Your task to perform on an android device: Go to Reddit.com Image 0: 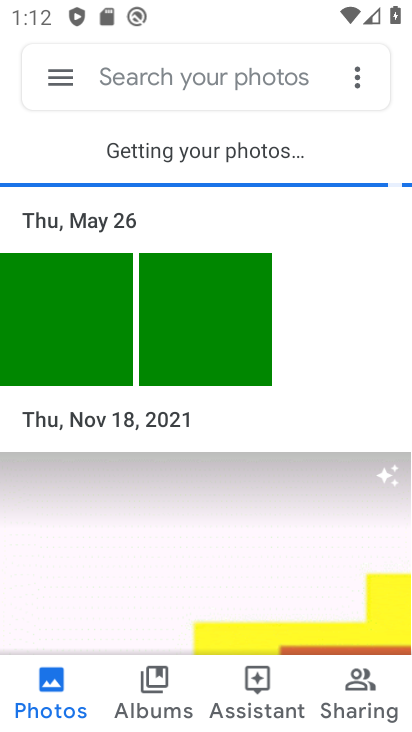
Step 0: press home button
Your task to perform on an android device: Go to Reddit.com Image 1: 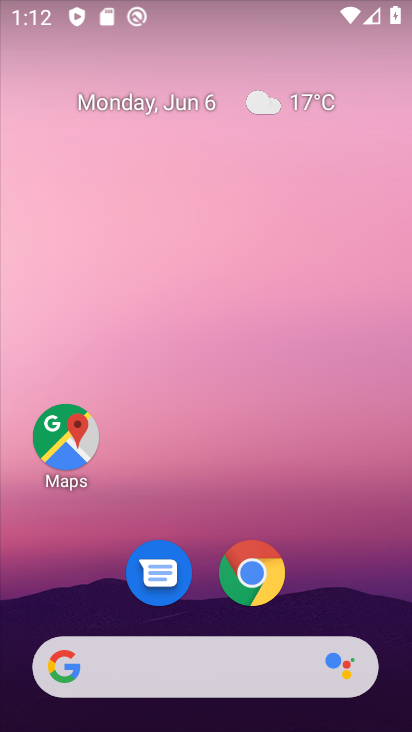
Step 1: drag from (362, 594) to (356, 124)
Your task to perform on an android device: Go to Reddit.com Image 2: 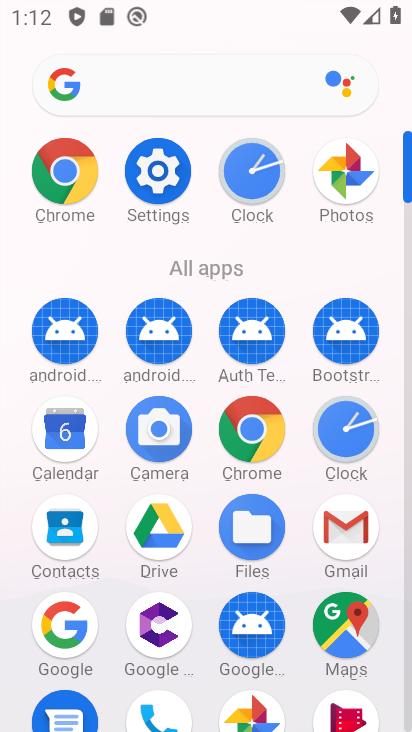
Step 2: click (274, 429)
Your task to perform on an android device: Go to Reddit.com Image 3: 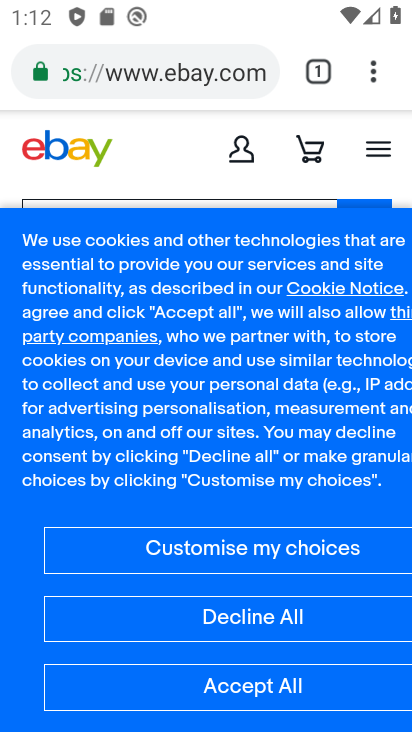
Step 3: click (233, 86)
Your task to perform on an android device: Go to Reddit.com Image 4: 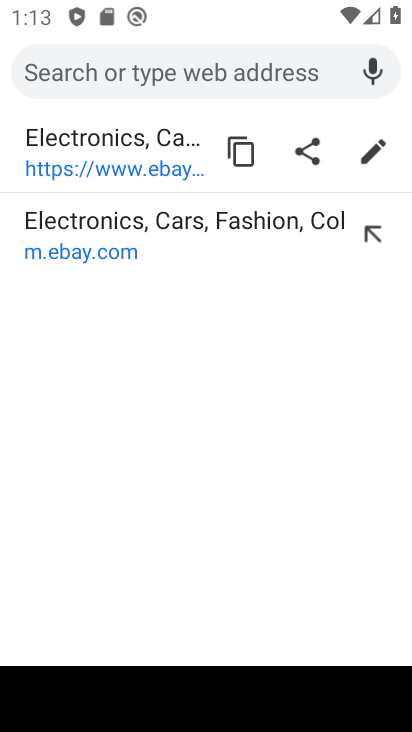
Step 4: type "reddit.com"
Your task to perform on an android device: Go to Reddit.com Image 5: 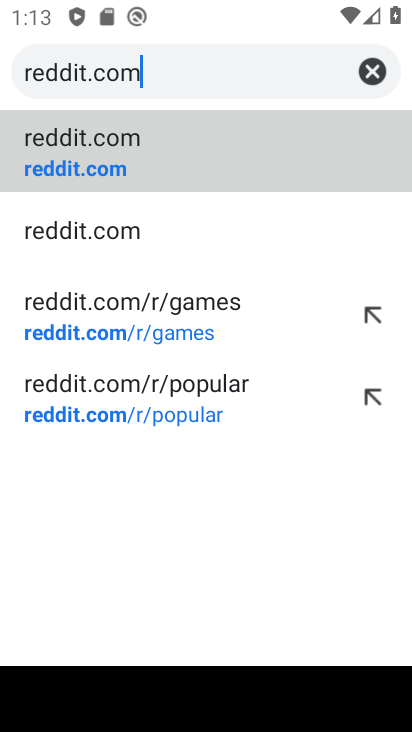
Step 5: click (119, 165)
Your task to perform on an android device: Go to Reddit.com Image 6: 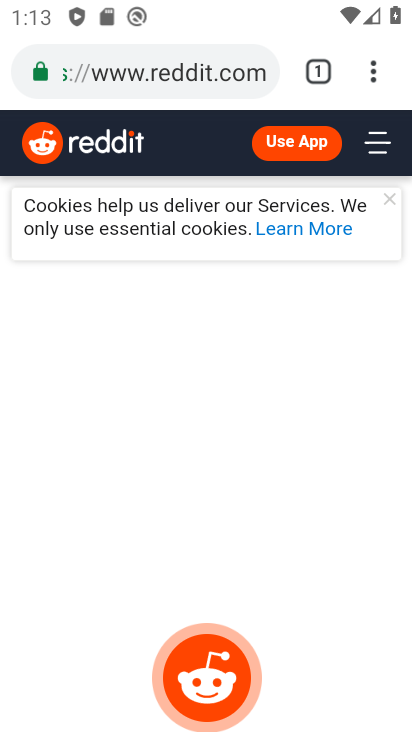
Step 6: task complete